Your task to perform on an android device: turn off priority inbox in the gmail app Image 0: 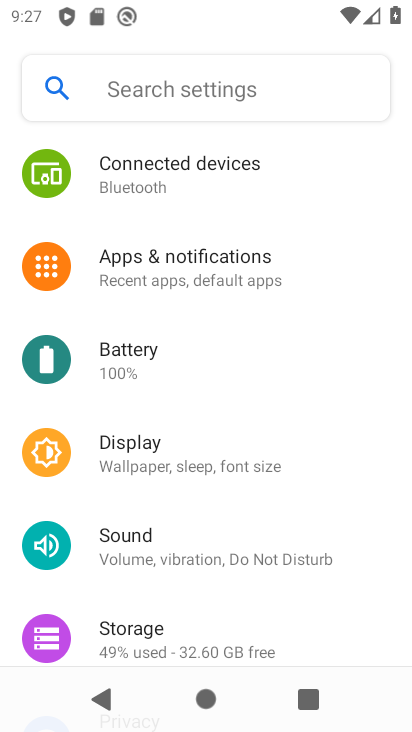
Step 0: press home button
Your task to perform on an android device: turn off priority inbox in the gmail app Image 1: 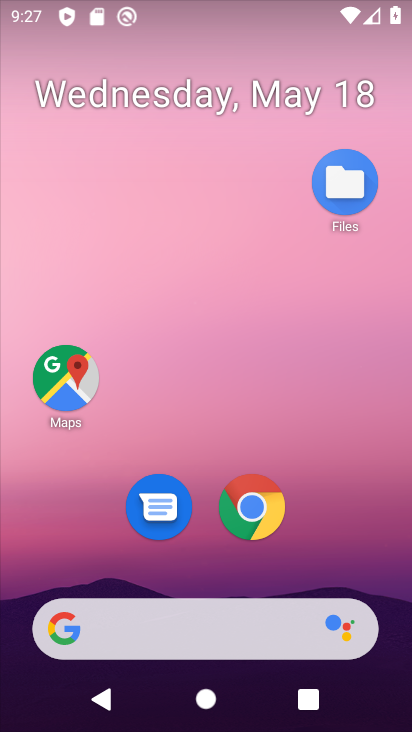
Step 1: drag from (343, 549) to (384, 212)
Your task to perform on an android device: turn off priority inbox in the gmail app Image 2: 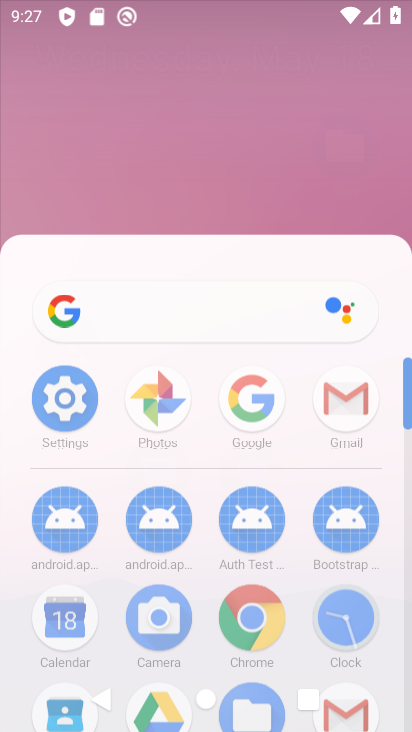
Step 2: click (384, 211)
Your task to perform on an android device: turn off priority inbox in the gmail app Image 3: 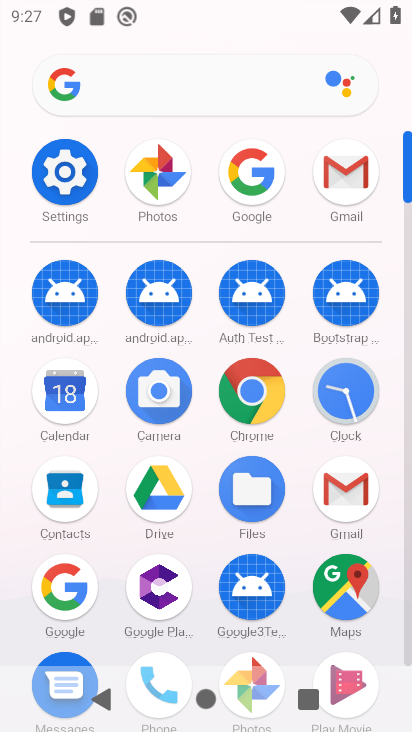
Step 3: click (330, 172)
Your task to perform on an android device: turn off priority inbox in the gmail app Image 4: 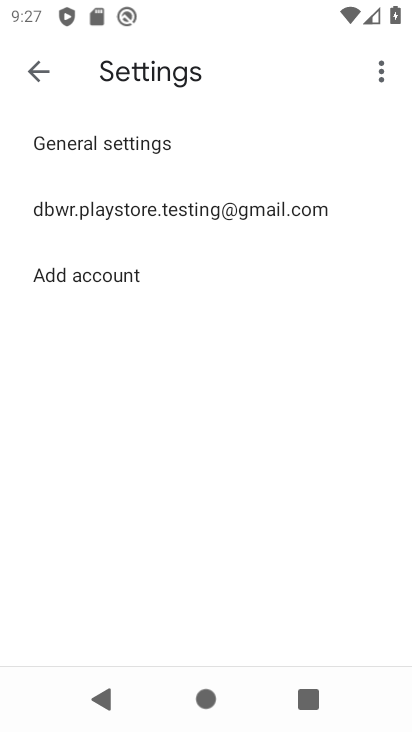
Step 4: click (108, 207)
Your task to perform on an android device: turn off priority inbox in the gmail app Image 5: 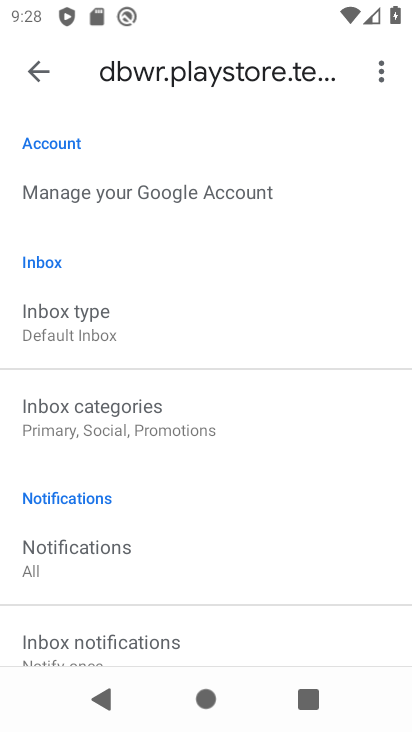
Step 5: click (79, 318)
Your task to perform on an android device: turn off priority inbox in the gmail app Image 6: 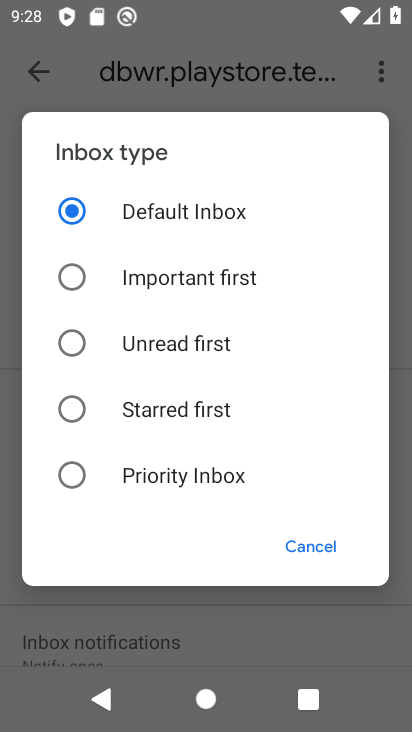
Step 6: task complete